Your task to perform on an android device: turn on the 12-hour format for clock Image 0: 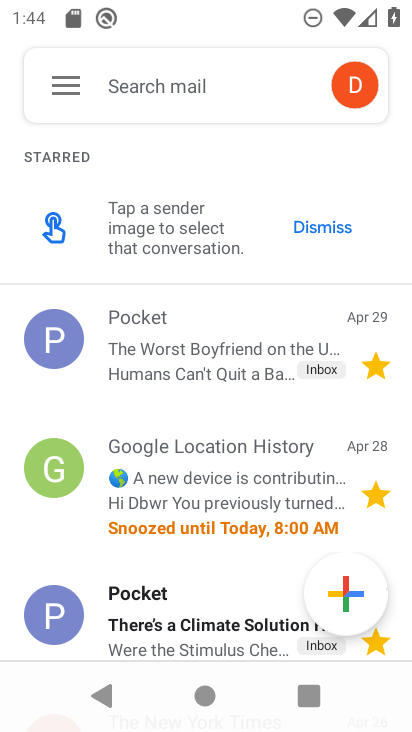
Step 0: press home button
Your task to perform on an android device: turn on the 12-hour format for clock Image 1: 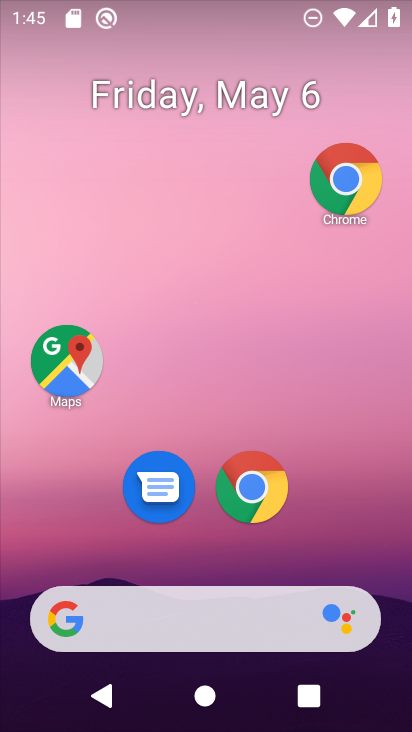
Step 1: drag from (331, 521) to (296, 174)
Your task to perform on an android device: turn on the 12-hour format for clock Image 2: 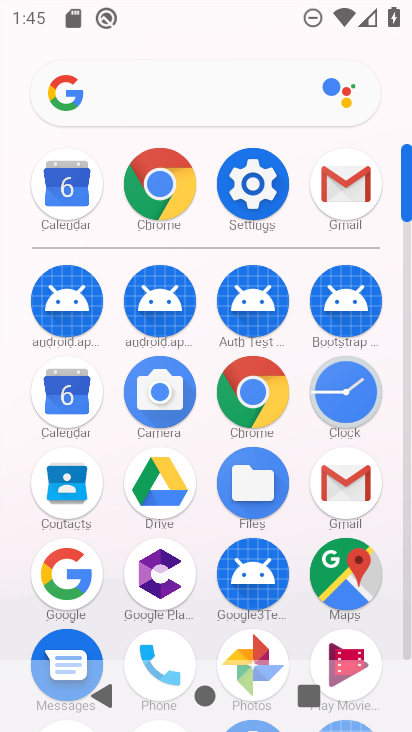
Step 2: click (78, 379)
Your task to perform on an android device: turn on the 12-hour format for clock Image 3: 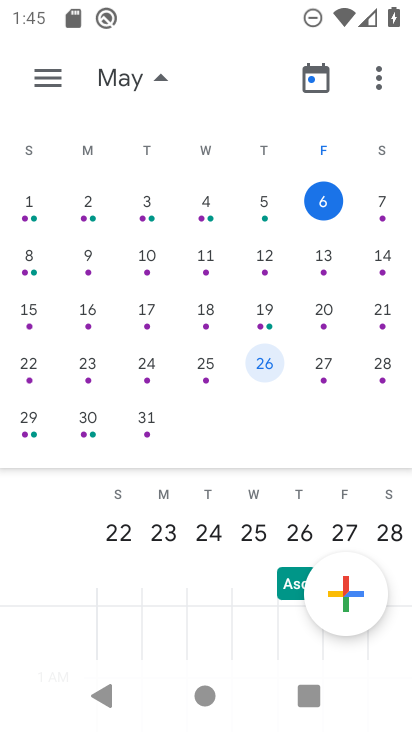
Step 3: press home button
Your task to perform on an android device: turn on the 12-hour format for clock Image 4: 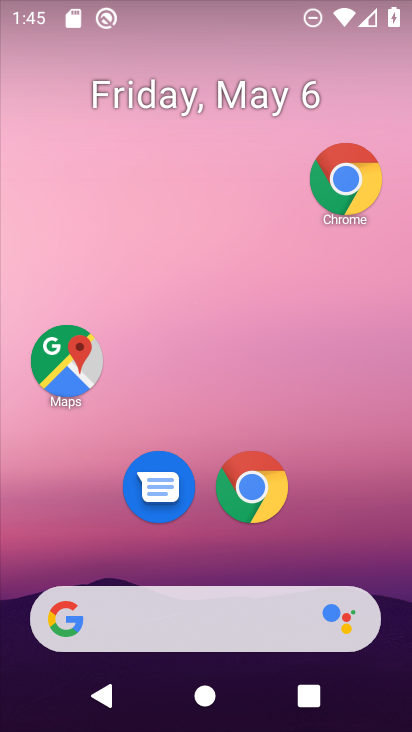
Step 4: drag from (339, 520) to (279, 222)
Your task to perform on an android device: turn on the 12-hour format for clock Image 5: 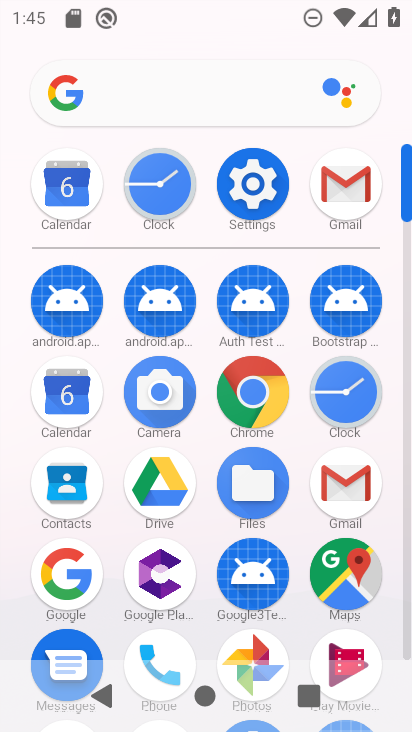
Step 5: click (364, 386)
Your task to perform on an android device: turn on the 12-hour format for clock Image 6: 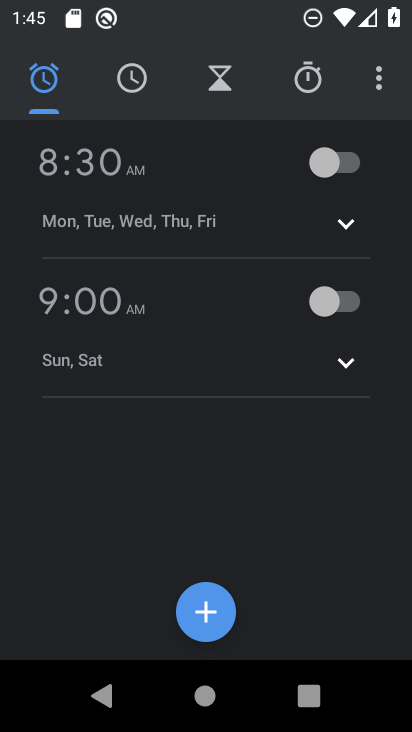
Step 6: click (373, 93)
Your task to perform on an android device: turn on the 12-hour format for clock Image 7: 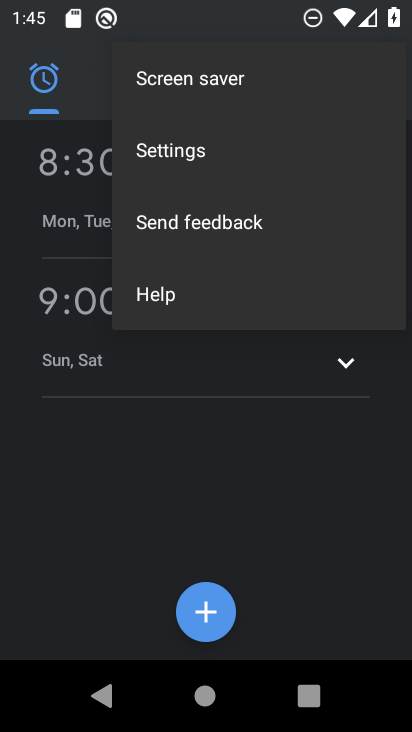
Step 7: click (232, 173)
Your task to perform on an android device: turn on the 12-hour format for clock Image 8: 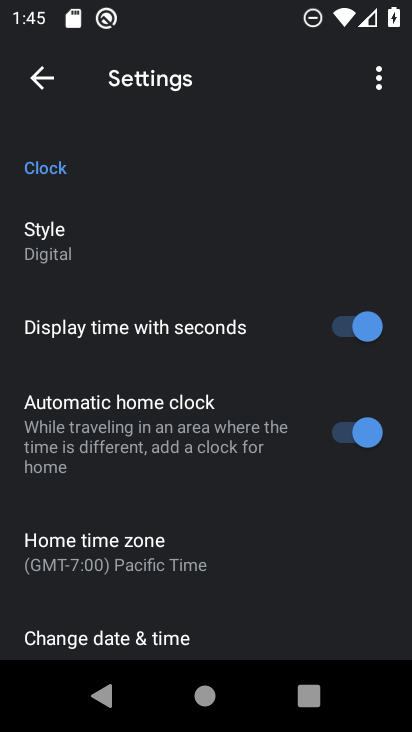
Step 8: drag from (231, 465) to (243, 319)
Your task to perform on an android device: turn on the 12-hour format for clock Image 9: 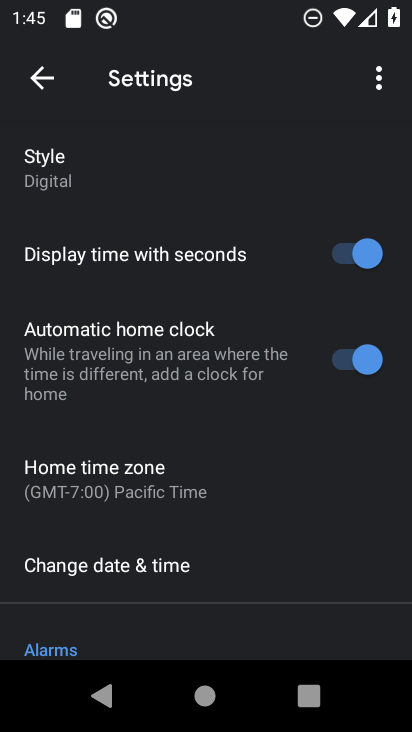
Step 9: click (200, 588)
Your task to perform on an android device: turn on the 12-hour format for clock Image 10: 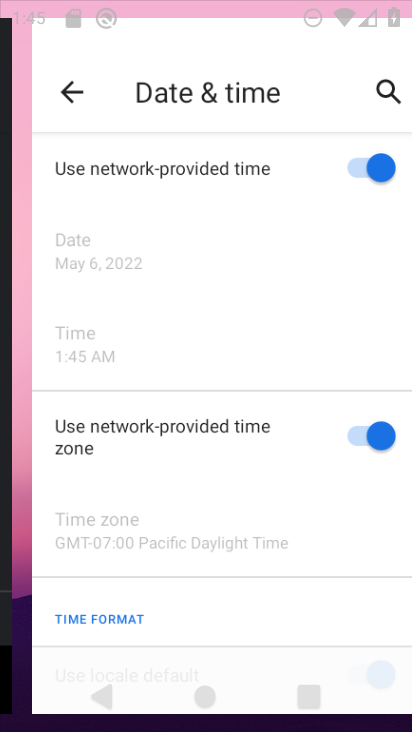
Step 10: task complete